Your task to perform on an android device: all mails in gmail Image 0: 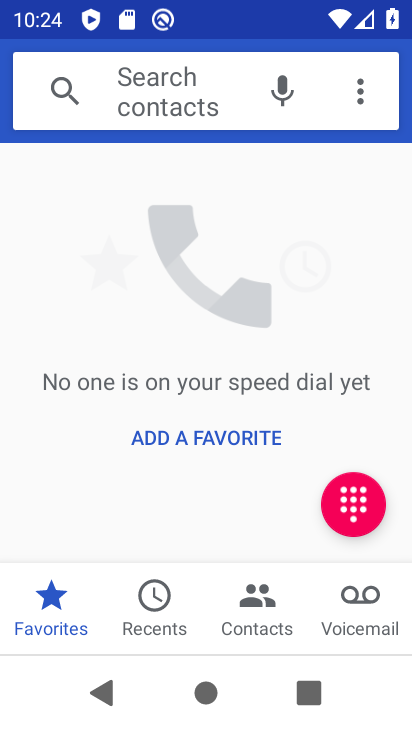
Step 0: press home button
Your task to perform on an android device: all mails in gmail Image 1: 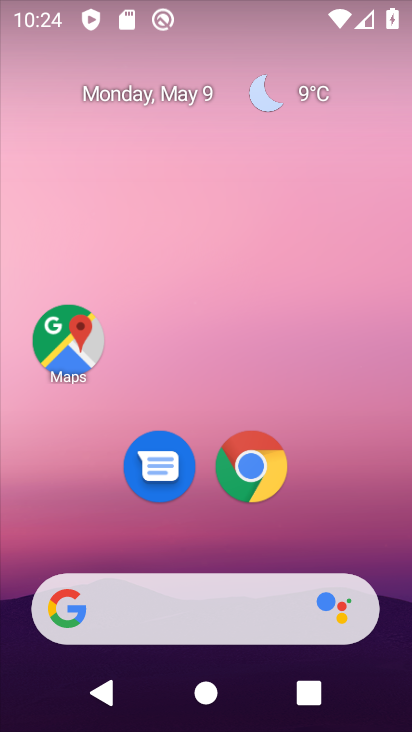
Step 1: drag from (298, 510) to (261, 119)
Your task to perform on an android device: all mails in gmail Image 2: 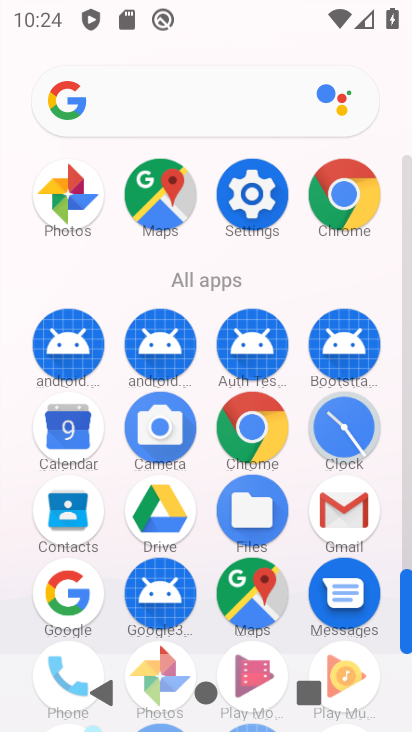
Step 2: click (341, 508)
Your task to perform on an android device: all mails in gmail Image 3: 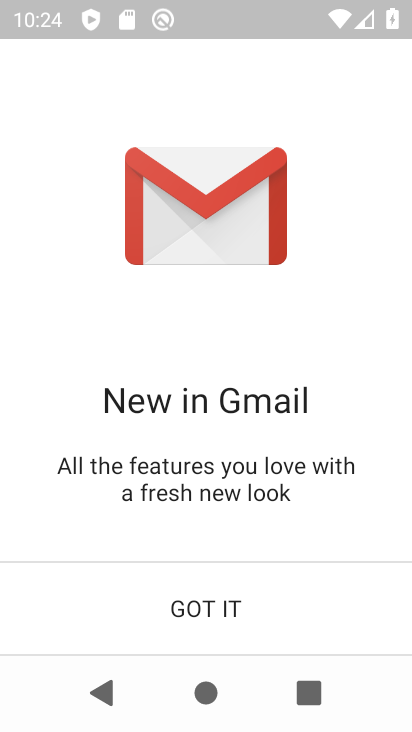
Step 3: click (239, 614)
Your task to perform on an android device: all mails in gmail Image 4: 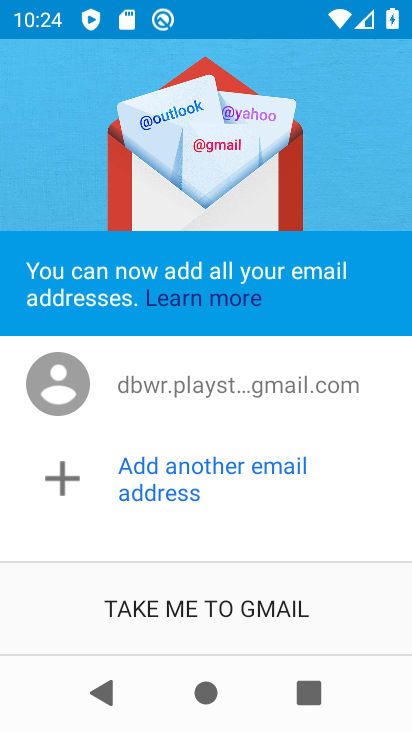
Step 4: click (229, 629)
Your task to perform on an android device: all mails in gmail Image 5: 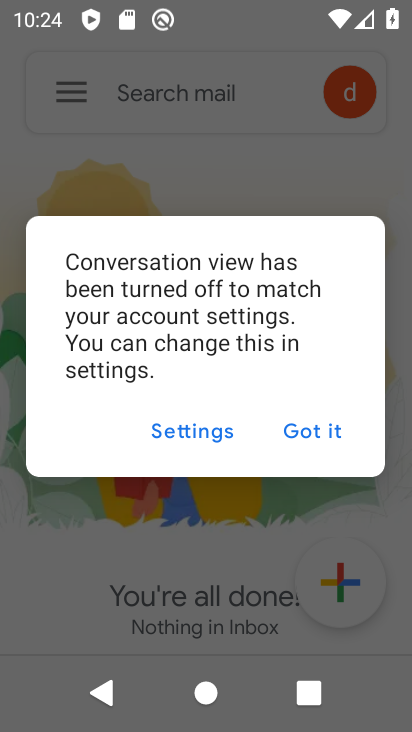
Step 5: click (317, 437)
Your task to perform on an android device: all mails in gmail Image 6: 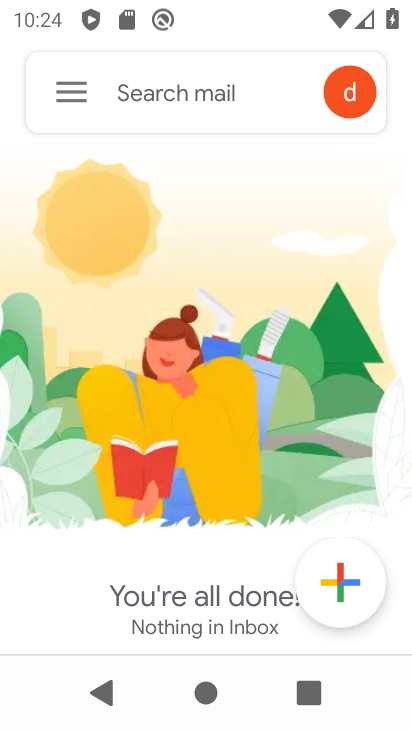
Step 6: click (82, 101)
Your task to perform on an android device: all mails in gmail Image 7: 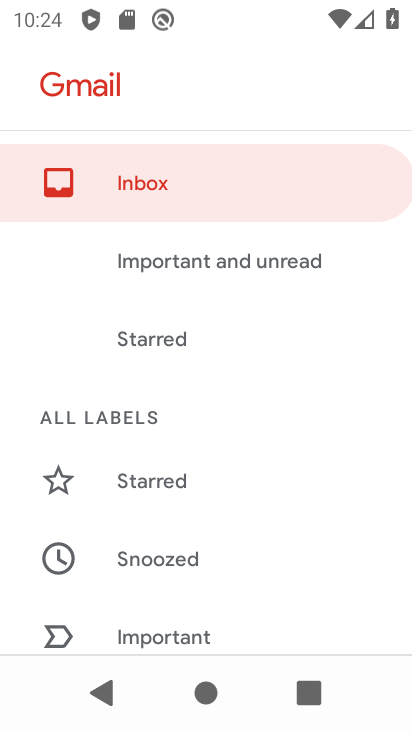
Step 7: drag from (198, 560) to (146, 110)
Your task to perform on an android device: all mails in gmail Image 8: 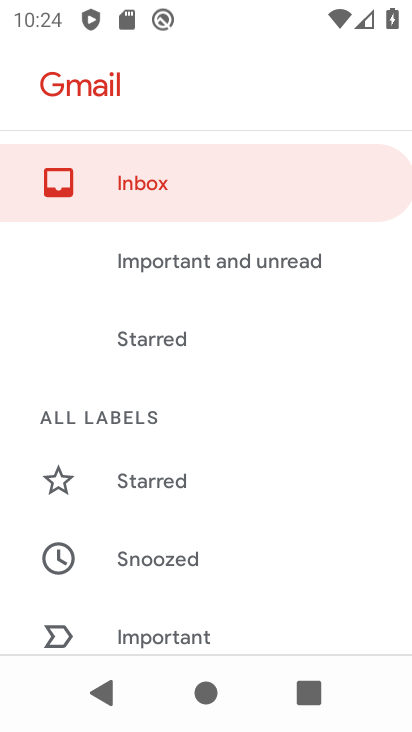
Step 8: drag from (165, 570) to (147, 197)
Your task to perform on an android device: all mails in gmail Image 9: 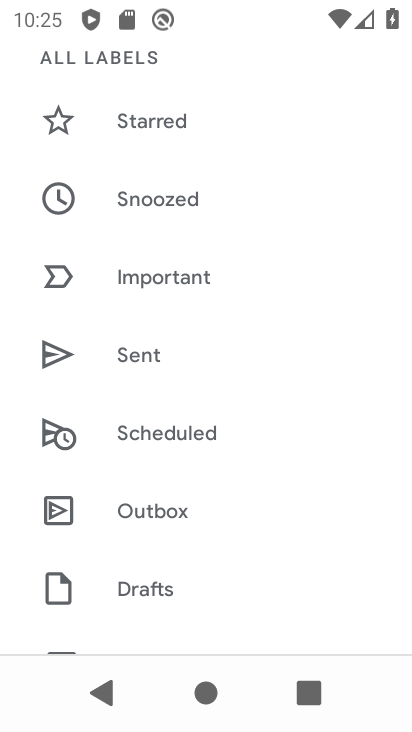
Step 9: drag from (117, 571) to (103, 284)
Your task to perform on an android device: all mails in gmail Image 10: 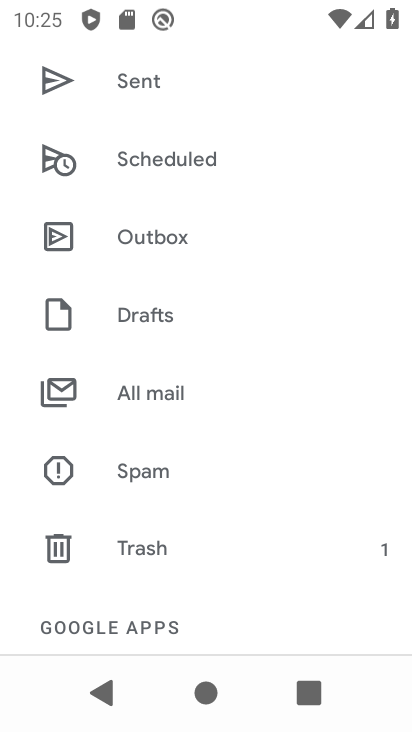
Step 10: click (149, 390)
Your task to perform on an android device: all mails in gmail Image 11: 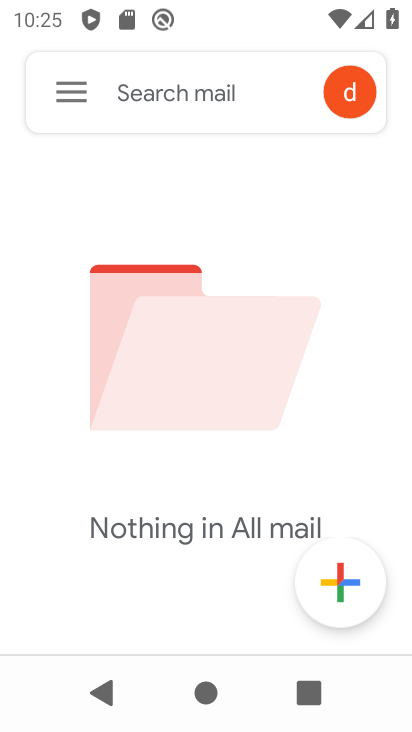
Step 11: task complete